Your task to perform on an android device: Go to Google maps Image 0: 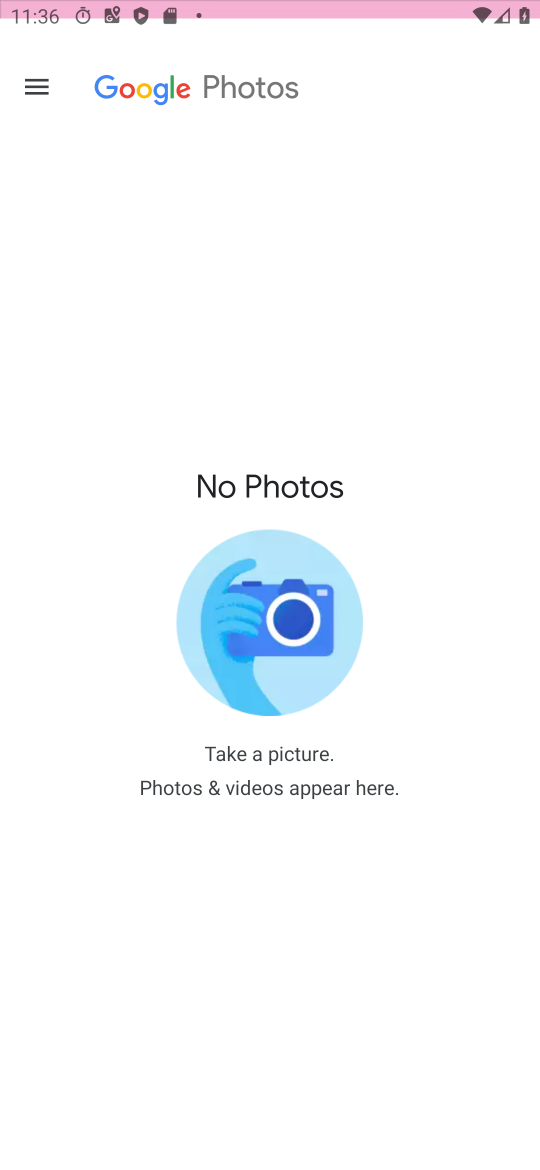
Step 0: press back button
Your task to perform on an android device: Go to Google maps Image 1: 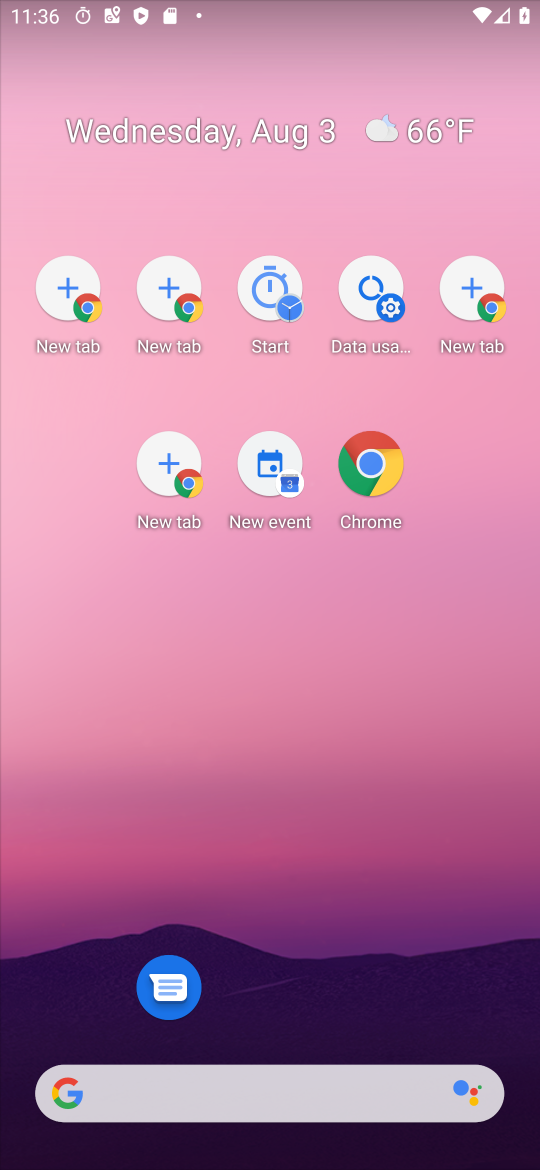
Step 1: drag from (283, 886) to (217, 195)
Your task to perform on an android device: Go to Google maps Image 2: 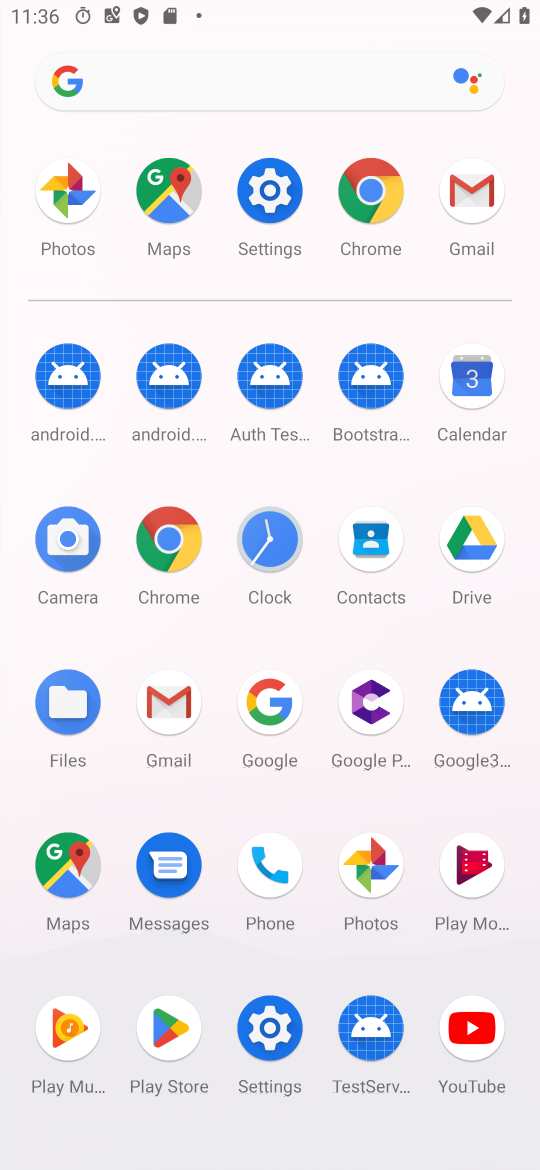
Step 2: click (47, 871)
Your task to perform on an android device: Go to Google maps Image 3: 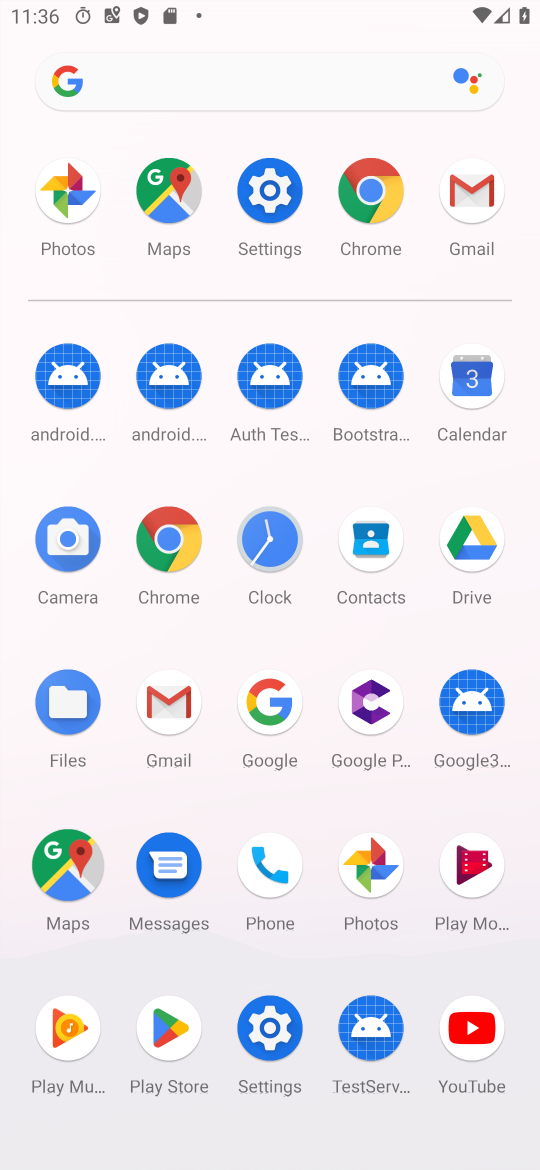
Step 3: click (58, 868)
Your task to perform on an android device: Go to Google maps Image 4: 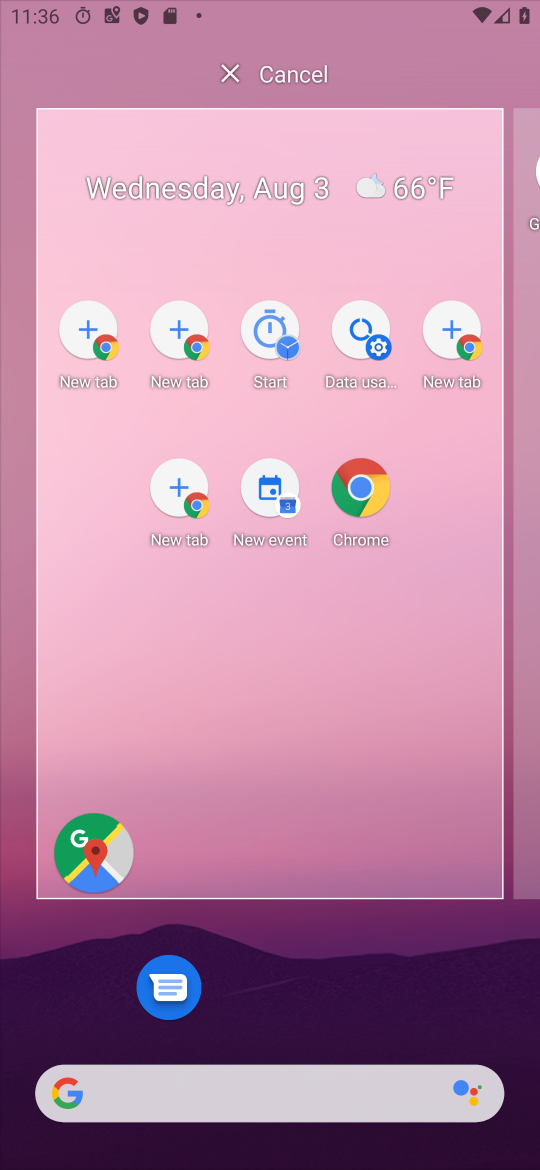
Step 4: click (97, 863)
Your task to perform on an android device: Go to Google maps Image 5: 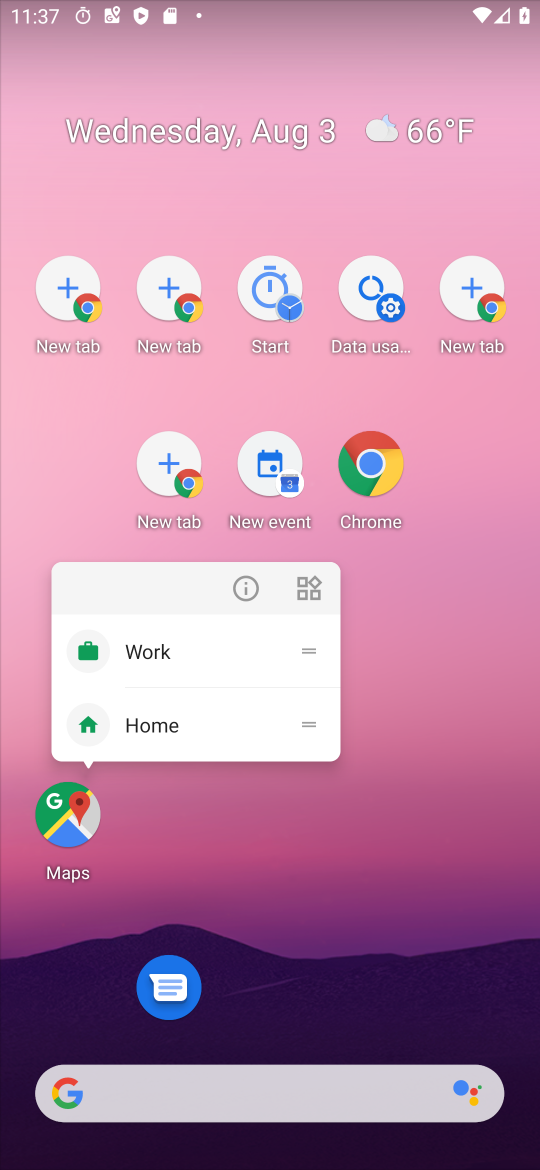
Step 5: click (78, 810)
Your task to perform on an android device: Go to Google maps Image 6: 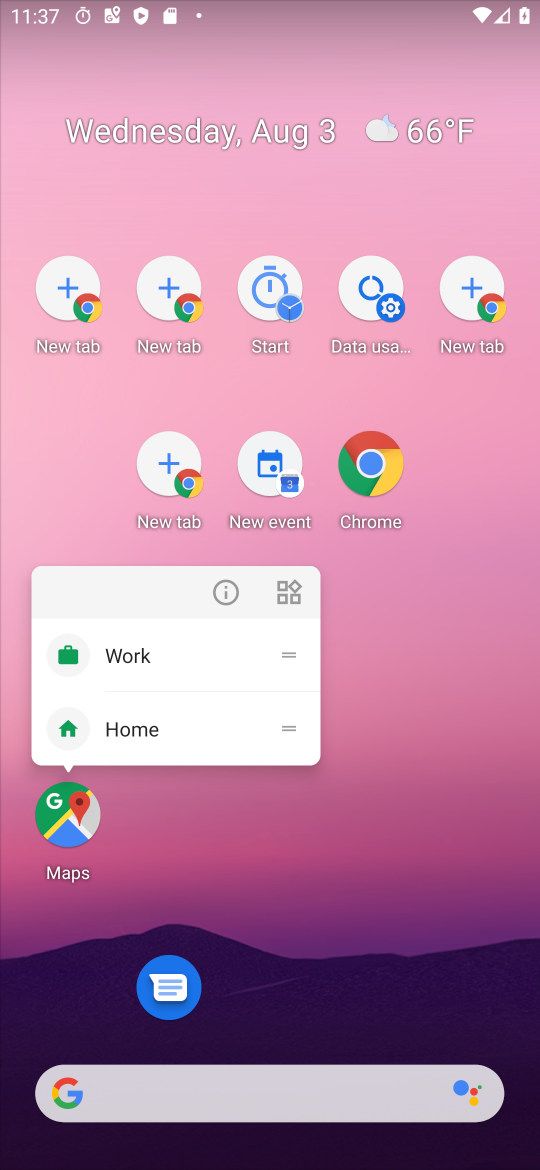
Step 6: click (104, 636)
Your task to perform on an android device: Go to Google maps Image 7: 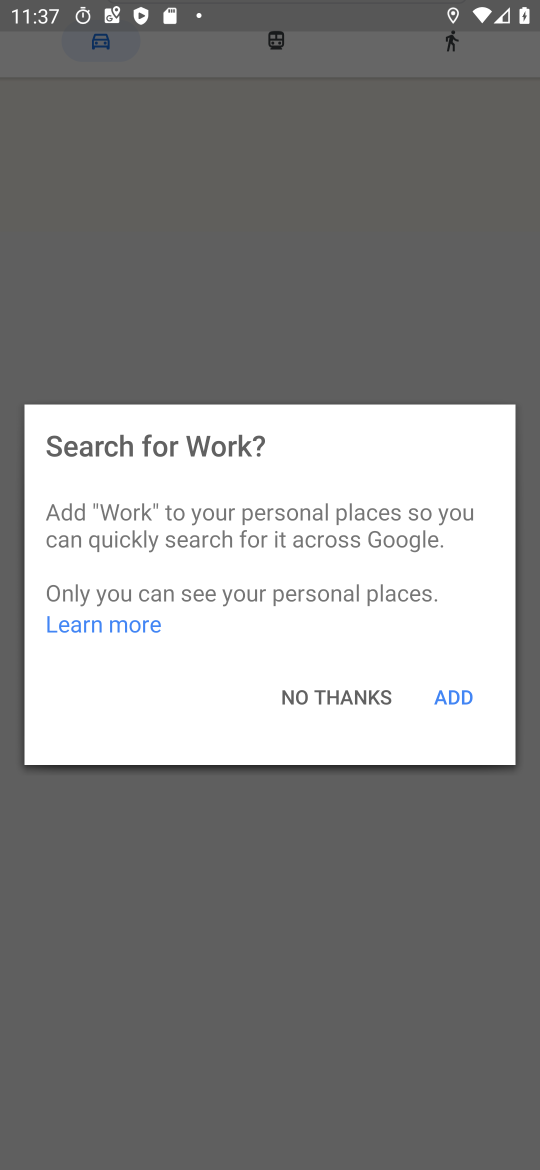
Step 7: task complete